Your task to perform on an android device: move a message to another label in the gmail app Image 0: 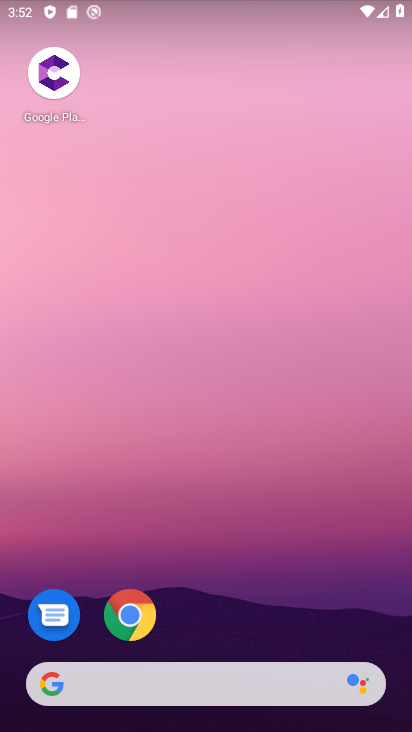
Step 0: drag from (290, 600) to (379, 154)
Your task to perform on an android device: move a message to another label in the gmail app Image 1: 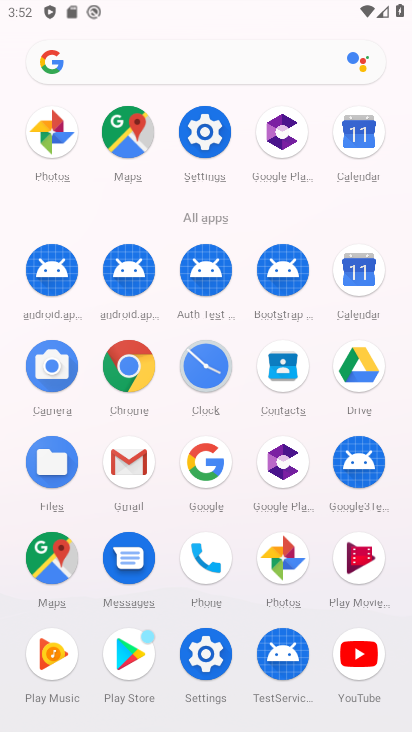
Step 1: click (139, 469)
Your task to perform on an android device: move a message to another label in the gmail app Image 2: 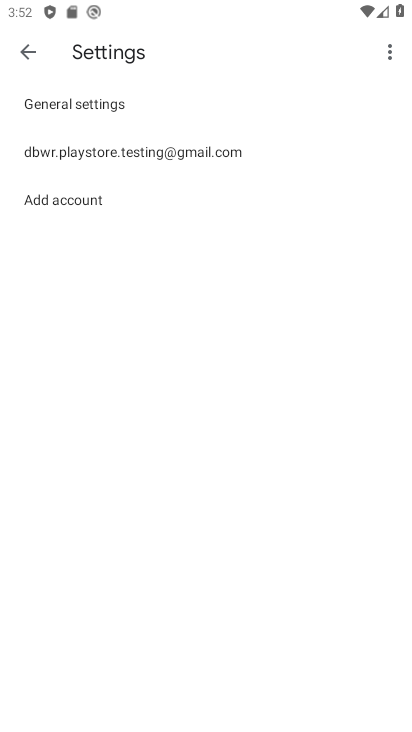
Step 2: click (15, 52)
Your task to perform on an android device: move a message to another label in the gmail app Image 3: 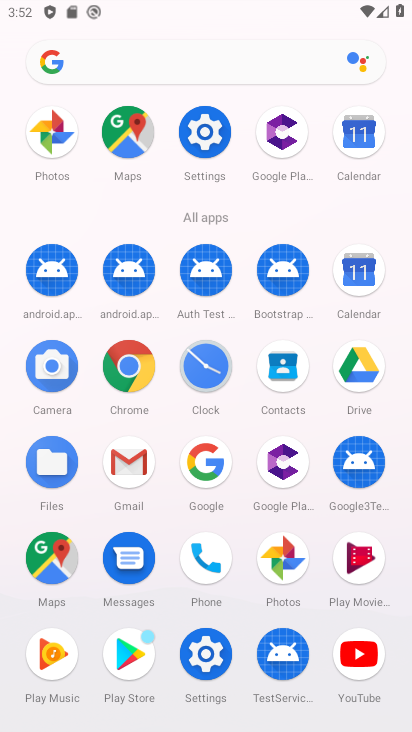
Step 3: click (140, 475)
Your task to perform on an android device: move a message to another label in the gmail app Image 4: 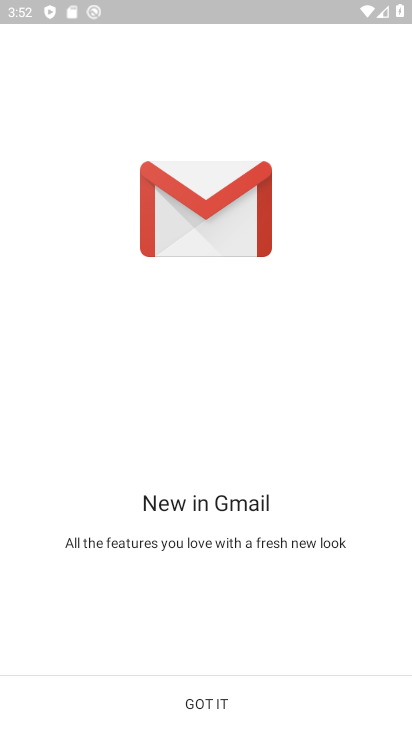
Step 4: click (189, 691)
Your task to perform on an android device: move a message to another label in the gmail app Image 5: 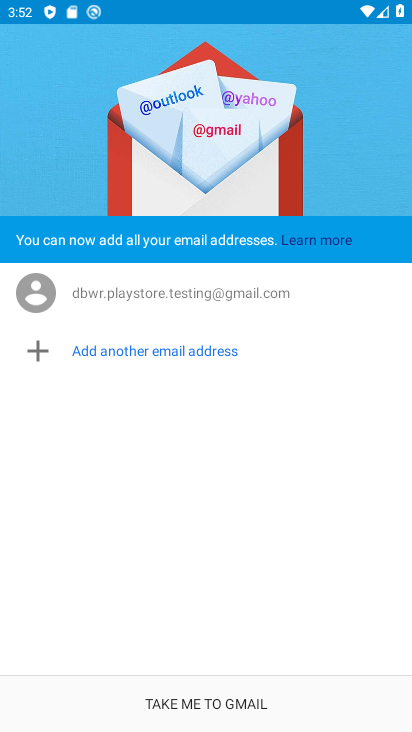
Step 5: click (253, 718)
Your task to perform on an android device: move a message to another label in the gmail app Image 6: 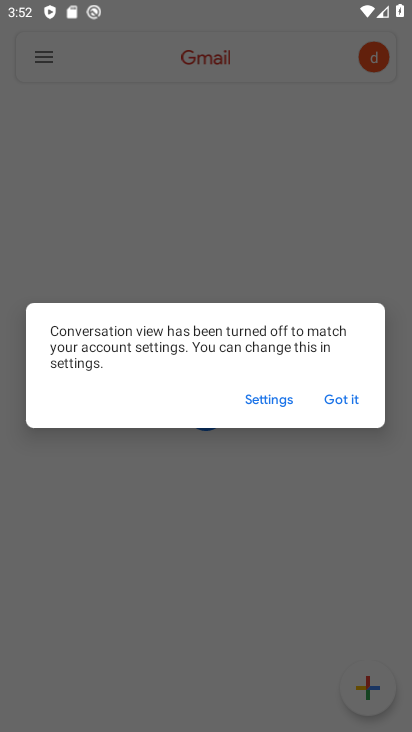
Step 6: click (343, 396)
Your task to perform on an android device: move a message to another label in the gmail app Image 7: 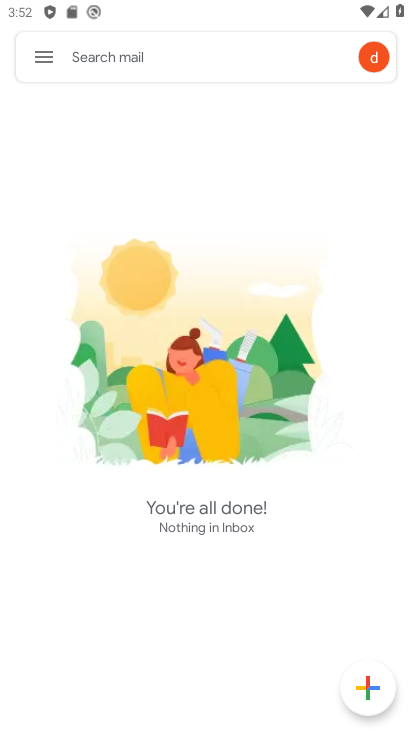
Step 7: click (46, 50)
Your task to perform on an android device: move a message to another label in the gmail app Image 8: 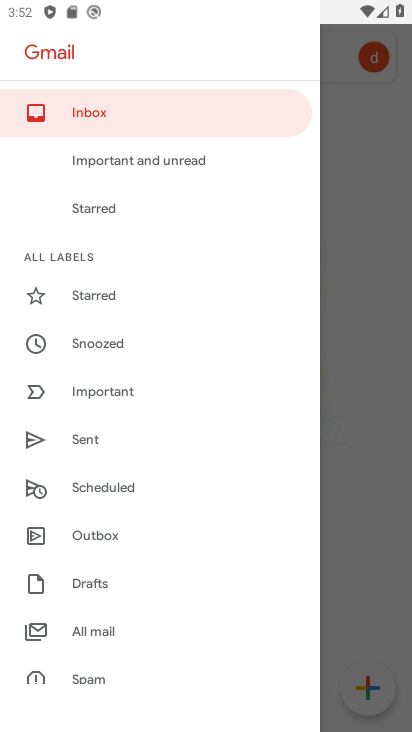
Step 8: click (128, 637)
Your task to perform on an android device: move a message to another label in the gmail app Image 9: 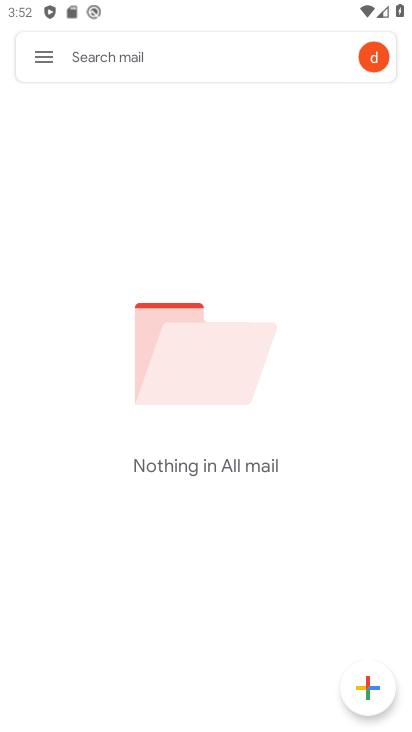
Step 9: task complete